Your task to perform on an android device: allow cookies in the chrome app Image 0: 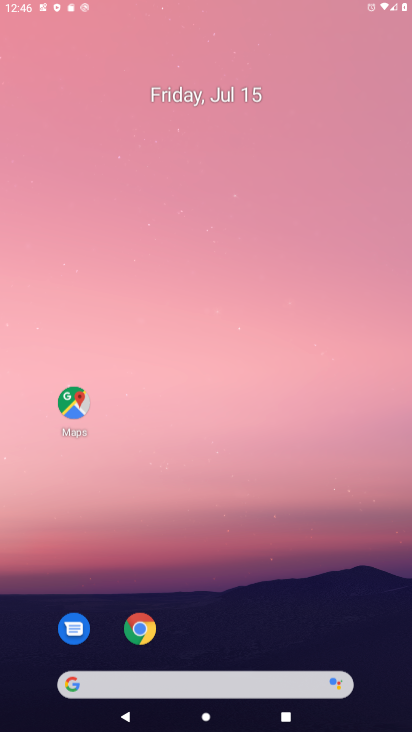
Step 0: press home button
Your task to perform on an android device: allow cookies in the chrome app Image 1: 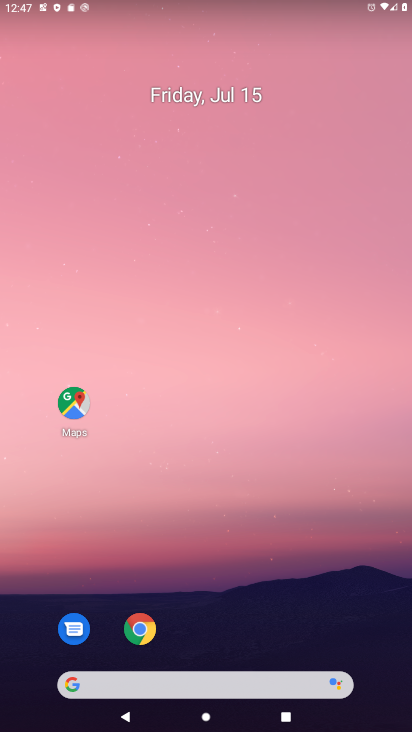
Step 1: drag from (232, 623) to (185, 20)
Your task to perform on an android device: allow cookies in the chrome app Image 2: 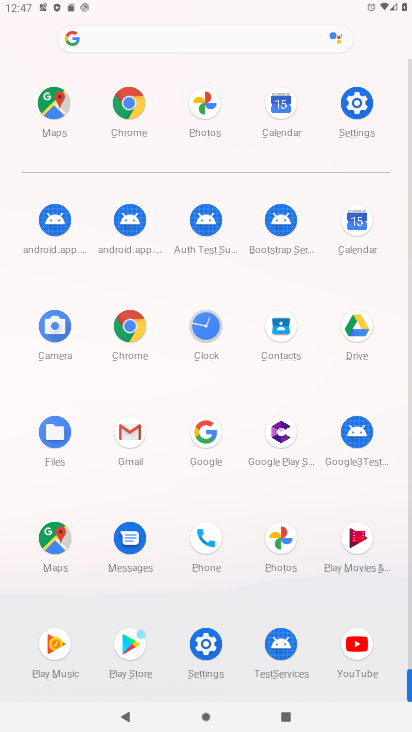
Step 2: click (130, 113)
Your task to perform on an android device: allow cookies in the chrome app Image 3: 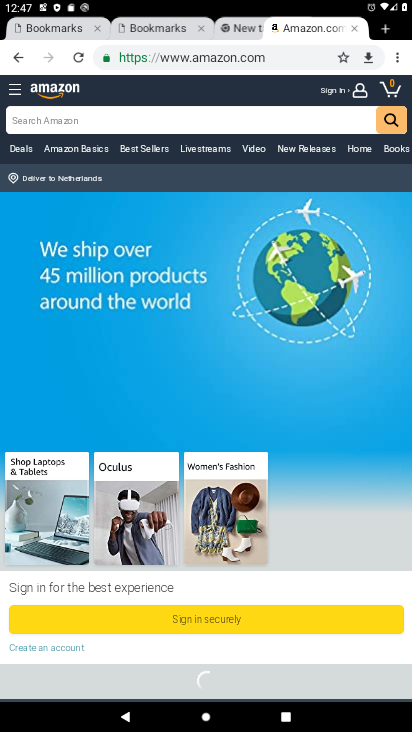
Step 3: drag from (398, 58) to (279, 391)
Your task to perform on an android device: allow cookies in the chrome app Image 4: 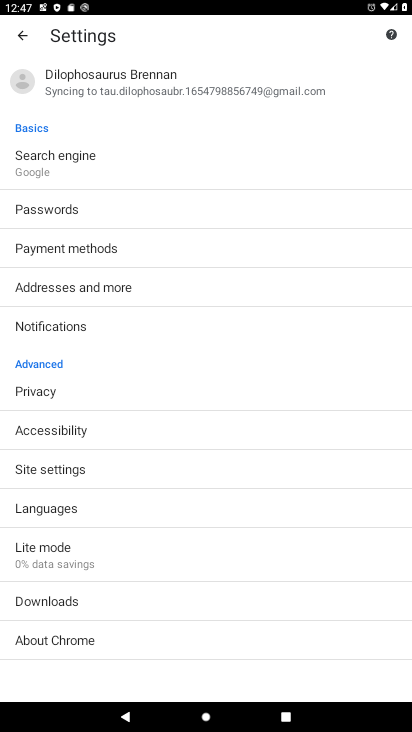
Step 4: click (45, 469)
Your task to perform on an android device: allow cookies in the chrome app Image 5: 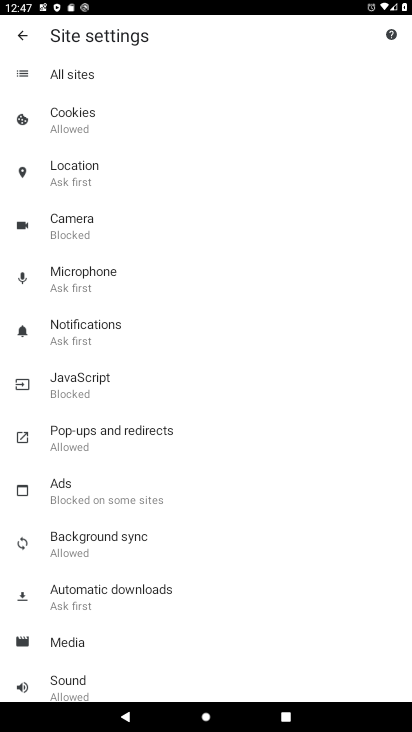
Step 5: click (76, 124)
Your task to perform on an android device: allow cookies in the chrome app Image 6: 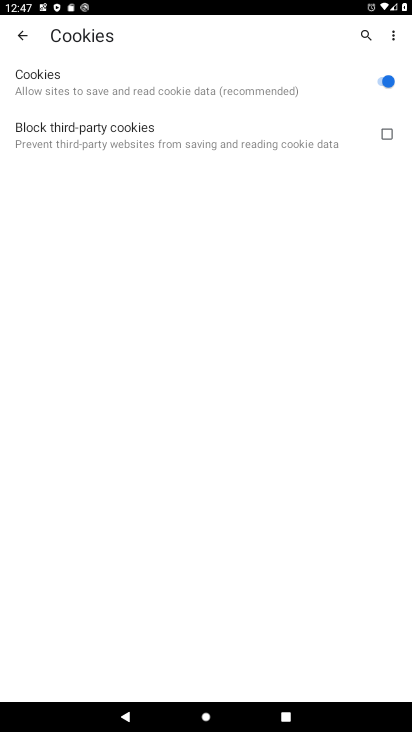
Step 6: task complete